Your task to perform on an android device: turn off picture-in-picture Image 0: 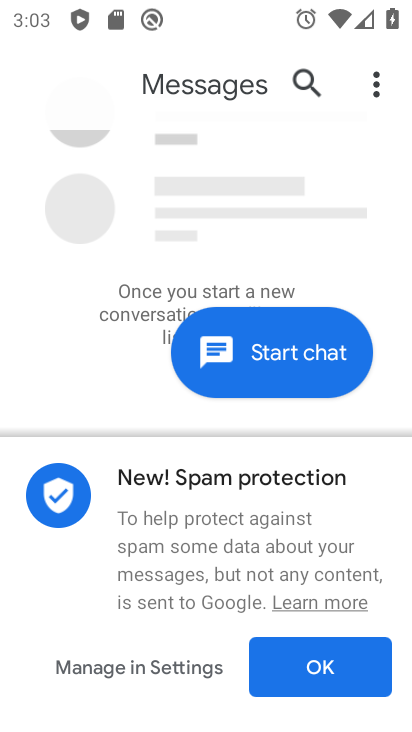
Step 0: press home button
Your task to perform on an android device: turn off picture-in-picture Image 1: 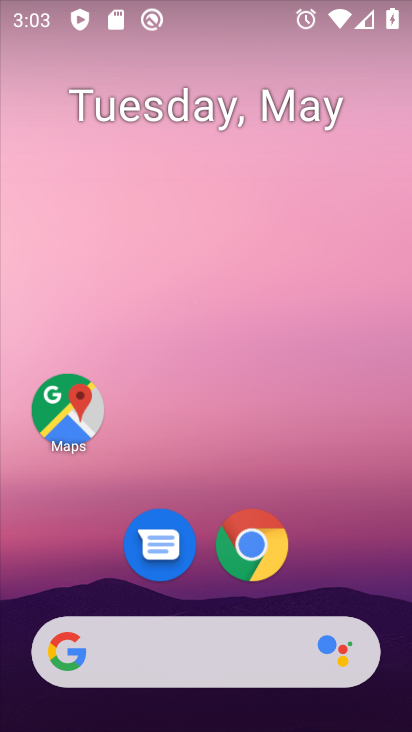
Step 1: click (241, 549)
Your task to perform on an android device: turn off picture-in-picture Image 2: 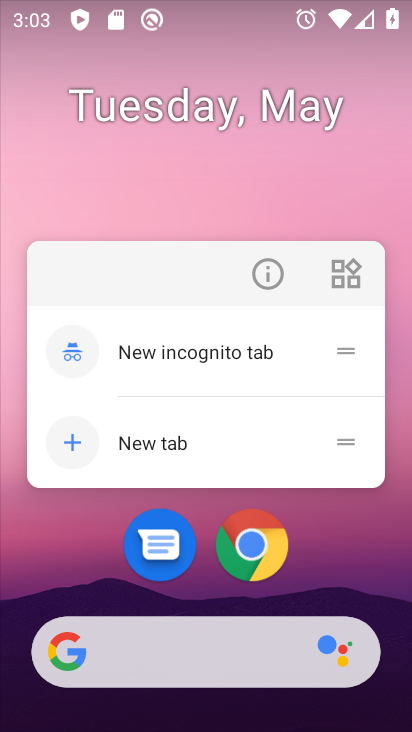
Step 2: click (259, 284)
Your task to perform on an android device: turn off picture-in-picture Image 3: 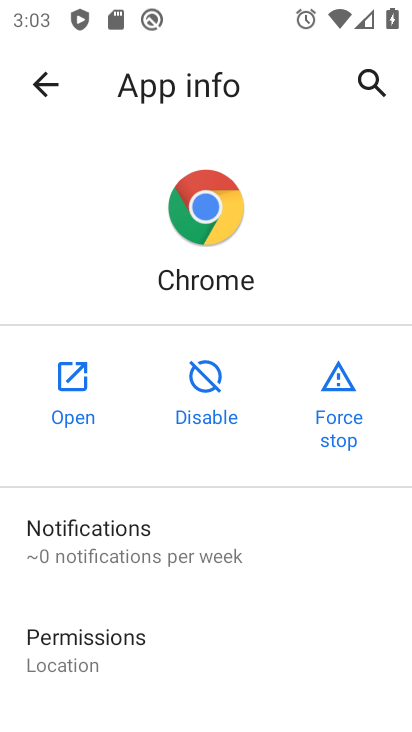
Step 3: drag from (208, 521) to (155, 12)
Your task to perform on an android device: turn off picture-in-picture Image 4: 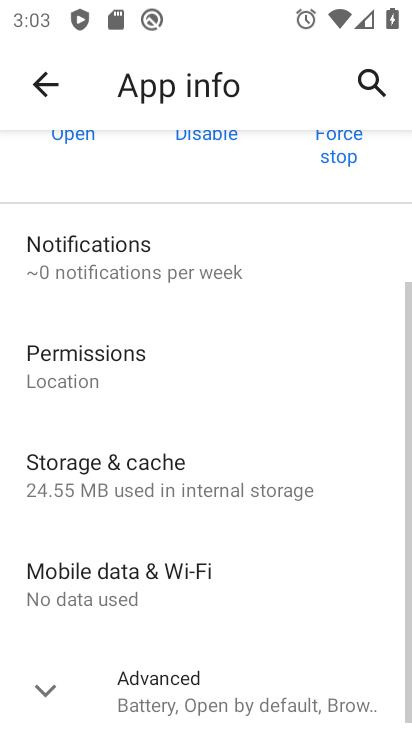
Step 4: drag from (227, 691) to (202, 278)
Your task to perform on an android device: turn off picture-in-picture Image 5: 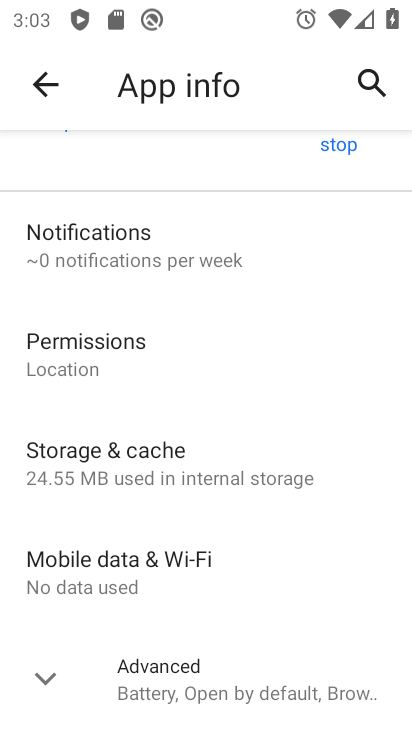
Step 5: click (181, 656)
Your task to perform on an android device: turn off picture-in-picture Image 6: 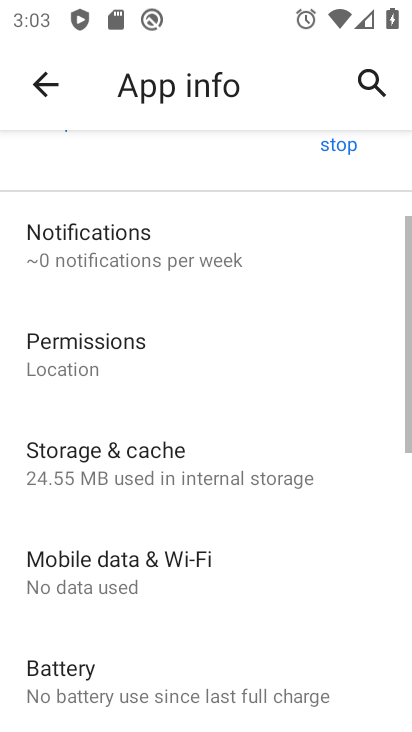
Step 6: drag from (216, 642) to (270, 241)
Your task to perform on an android device: turn off picture-in-picture Image 7: 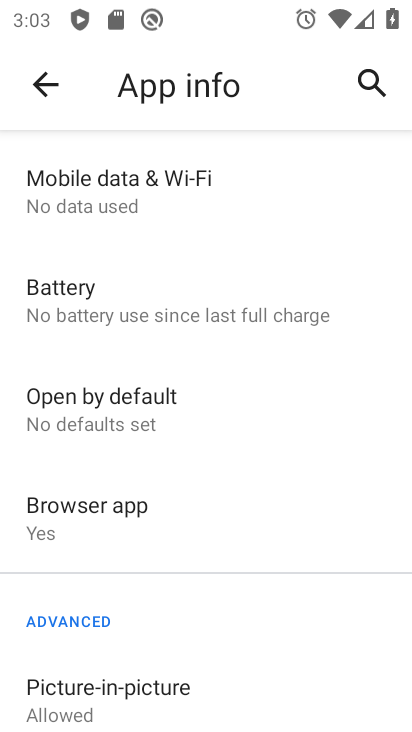
Step 7: click (164, 685)
Your task to perform on an android device: turn off picture-in-picture Image 8: 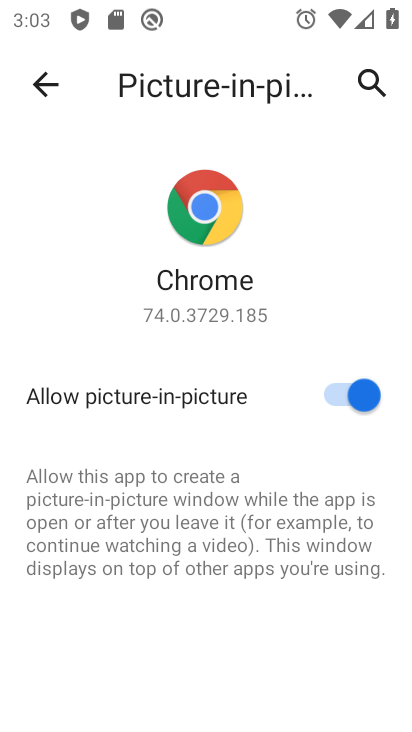
Step 8: click (361, 379)
Your task to perform on an android device: turn off picture-in-picture Image 9: 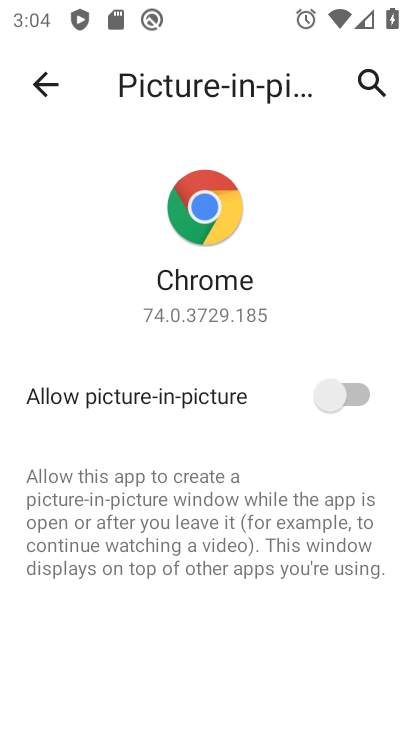
Step 9: task complete